Your task to perform on an android device: Open battery settings Image 0: 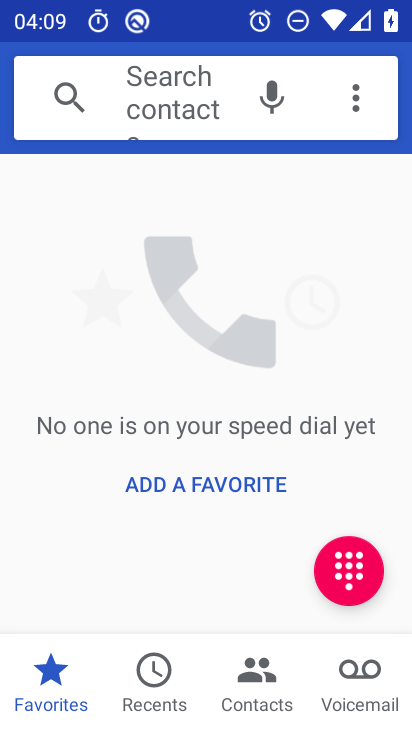
Step 0: press home button
Your task to perform on an android device: Open battery settings Image 1: 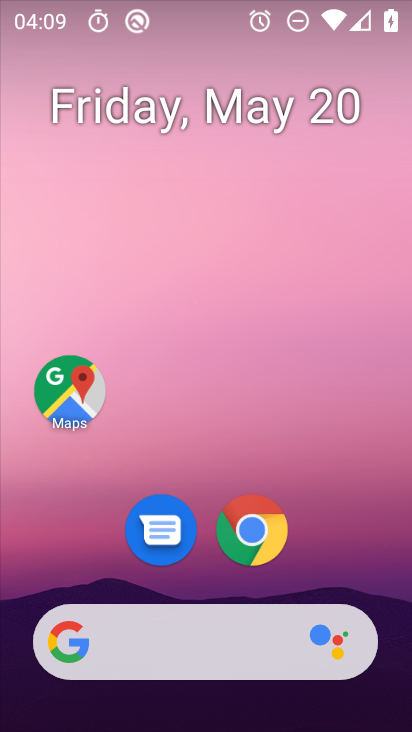
Step 1: drag from (395, 671) to (393, 169)
Your task to perform on an android device: Open battery settings Image 2: 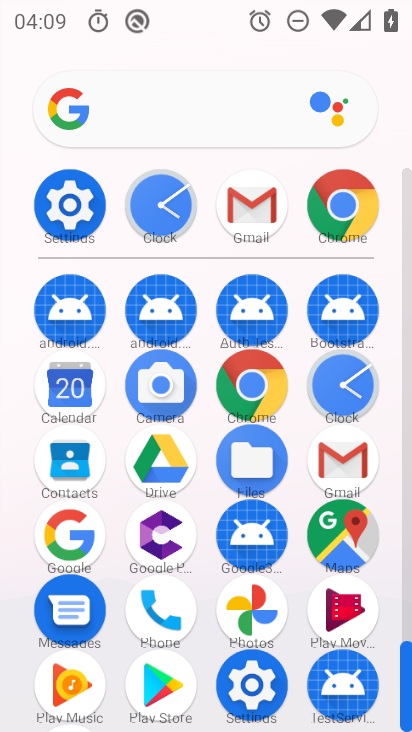
Step 2: click (38, 204)
Your task to perform on an android device: Open battery settings Image 3: 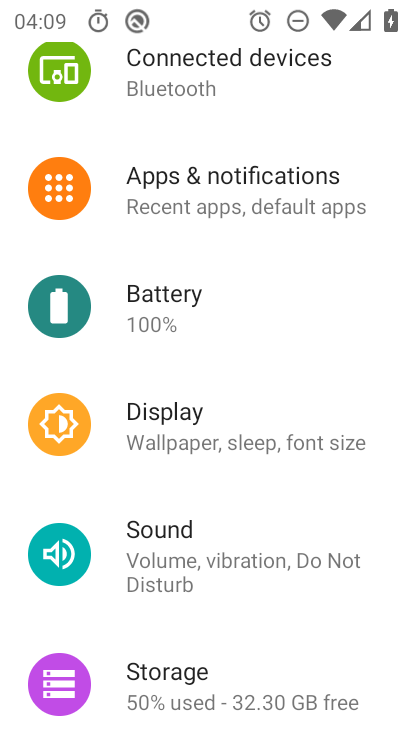
Step 3: click (166, 304)
Your task to perform on an android device: Open battery settings Image 4: 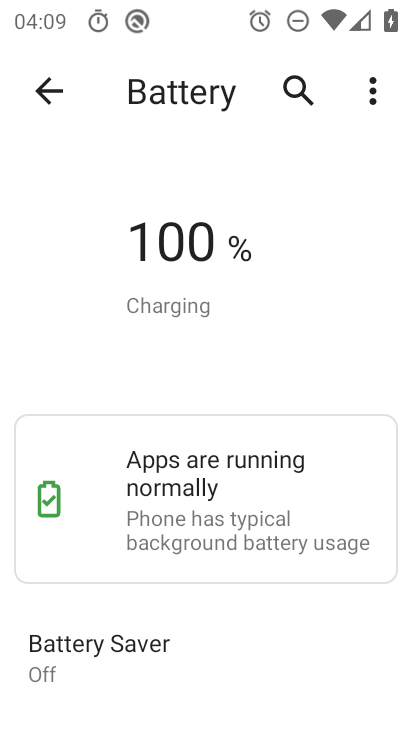
Step 4: click (373, 83)
Your task to perform on an android device: Open battery settings Image 5: 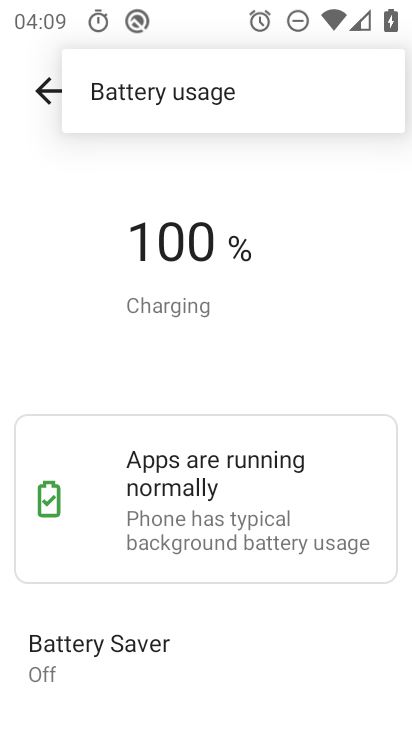
Step 5: click (241, 99)
Your task to perform on an android device: Open battery settings Image 6: 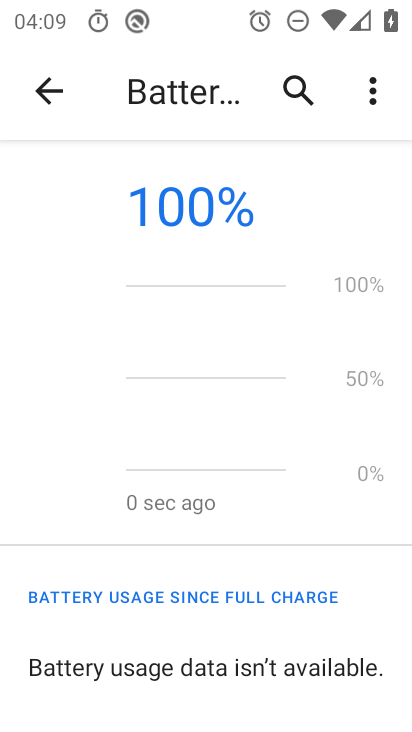
Step 6: task complete